Your task to perform on an android device: Open the Play Movies app and select the watchlist tab. Image 0: 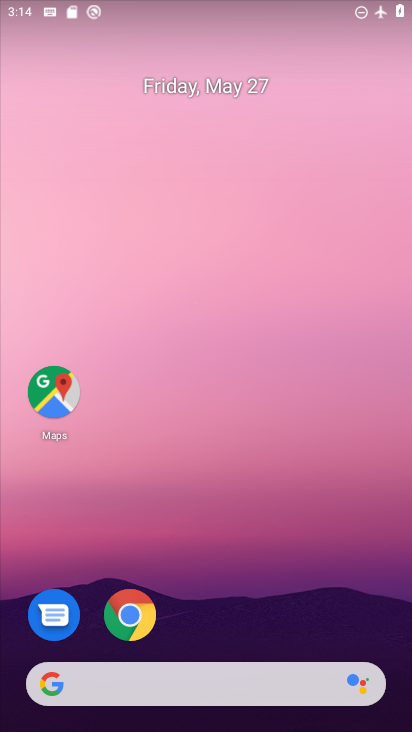
Step 0: drag from (289, 573) to (183, 32)
Your task to perform on an android device: Open the Play Movies app and select the watchlist tab. Image 1: 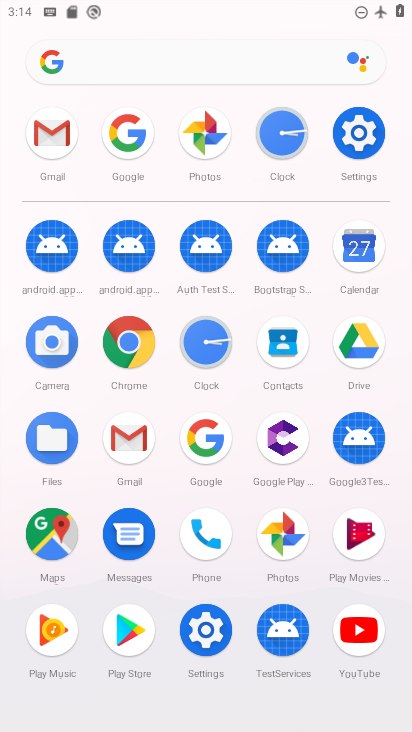
Step 1: click (370, 522)
Your task to perform on an android device: Open the Play Movies app and select the watchlist tab. Image 2: 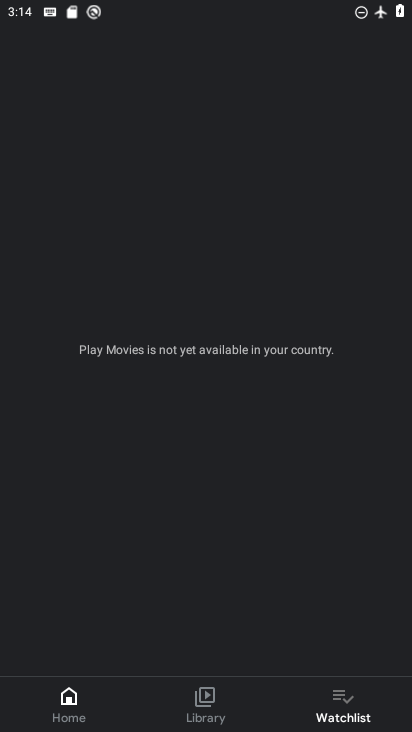
Step 2: click (336, 687)
Your task to perform on an android device: Open the Play Movies app and select the watchlist tab. Image 3: 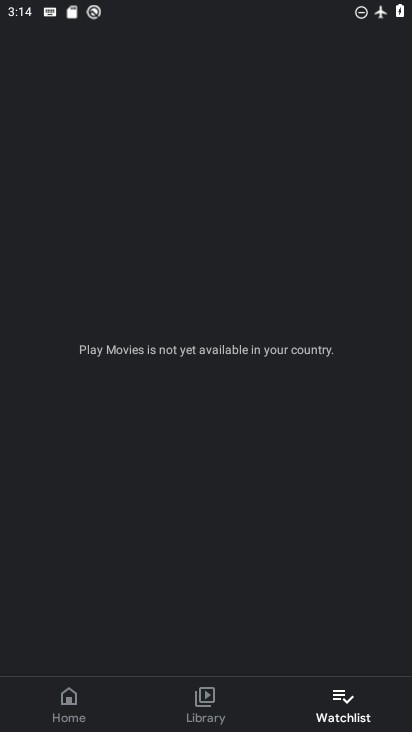
Step 3: task complete